Your task to perform on an android device: What's the weather going to be tomorrow? Image 0: 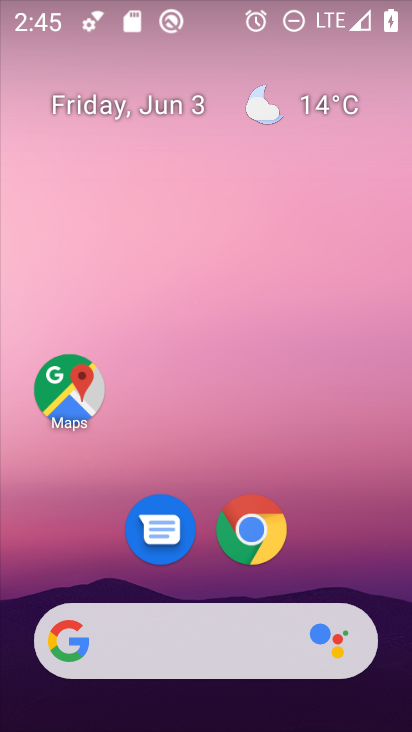
Step 0: click (313, 108)
Your task to perform on an android device: What's the weather going to be tomorrow? Image 1: 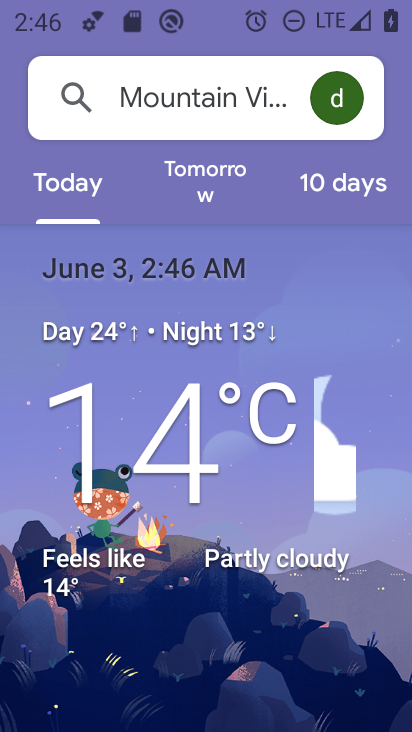
Step 1: click (217, 174)
Your task to perform on an android device: What's the weather going to be tomorrow? Image 2: 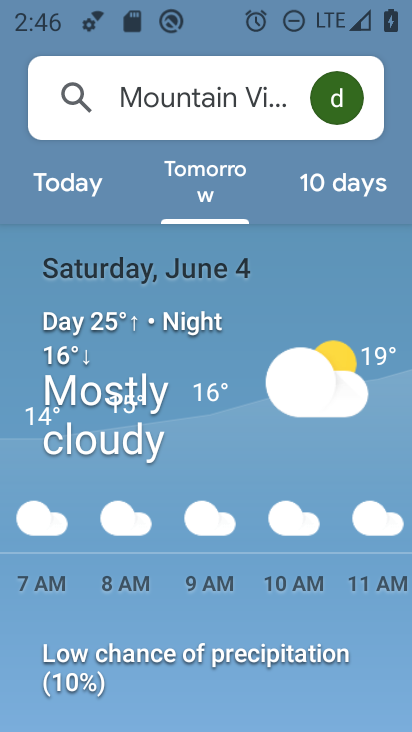
Step 2: task complete